Your task to perform on an android device: Open Android settings Image 0: 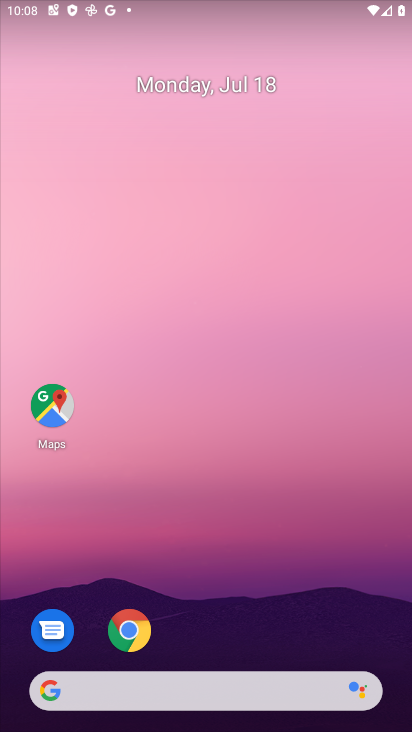
Step 0: drag from (394, 666) to (184, 61)
Your task to perform on an android device: Open Android settings Image 1: 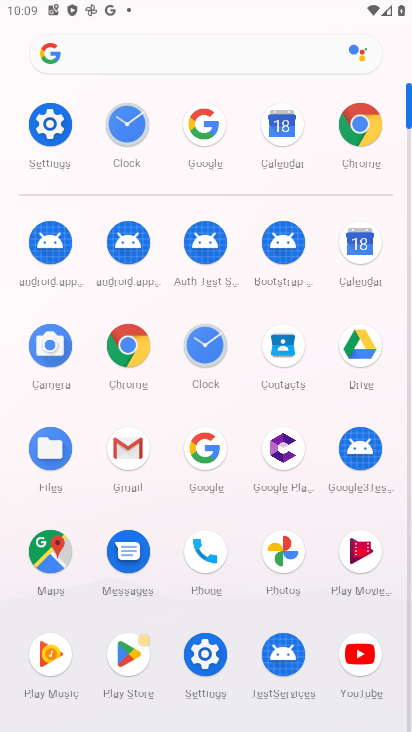
Step 1: click (216, 638)
Your task to perform on an android device: Open Android settings Image 2: 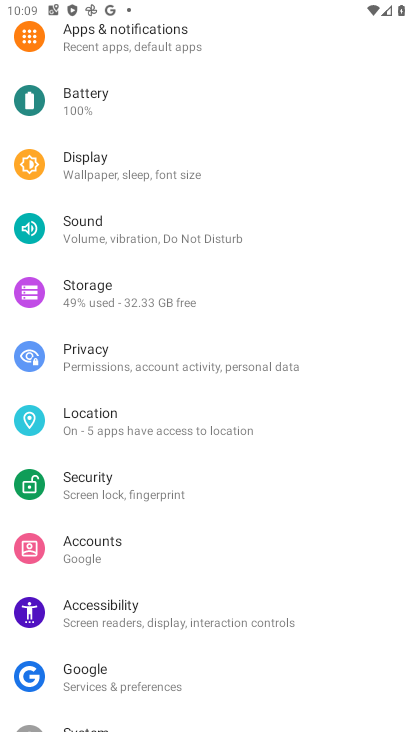
Step 2: task complete